Your task to perform on an android device: Open Google Maps and go to "Timeline" Image 0: 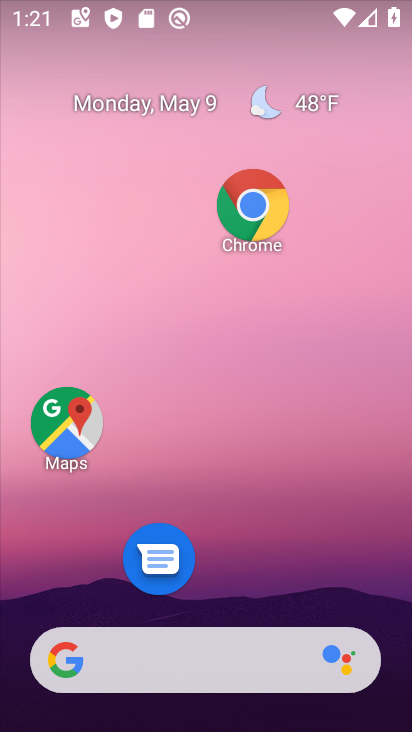
Step 0: drag from (267, 551) to (307, 250)
Your task to perform on an android device: Open Google Maps and go to "Timeline" Image 1: 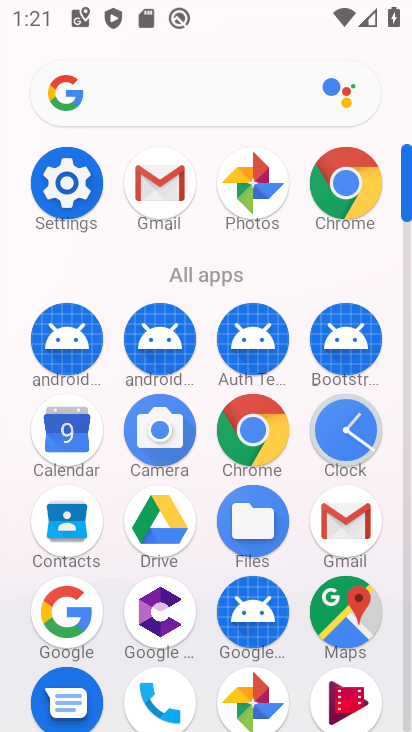
Step 1: click (344, 596)
Your task to perform on an android device: Open Google Maps and go to "Timeline" Image 2: 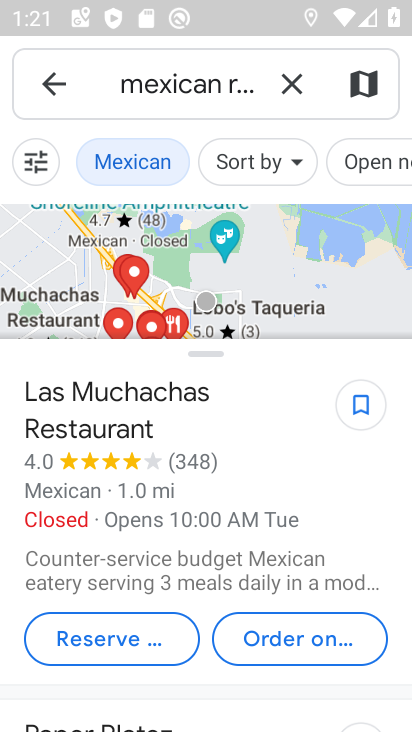
Step 2: click (283, 87)
Your task to perform on an android device: Open Google Maps and go to "Timeline" Image 3: 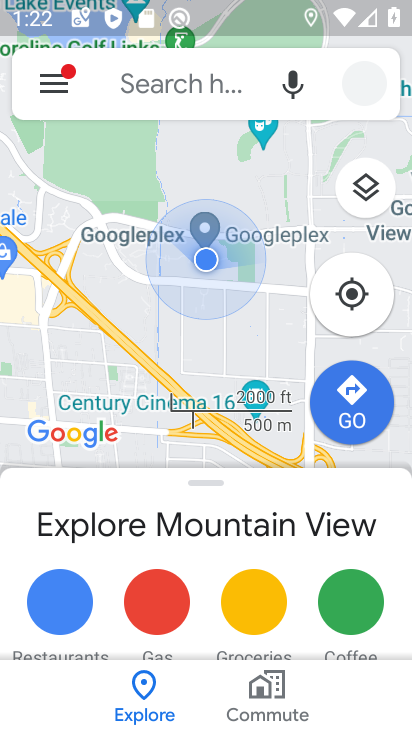
Step 3: click (52, 75)
Your task to perform on an android device: Open Google Maps and go to "Timeline" Image 4: 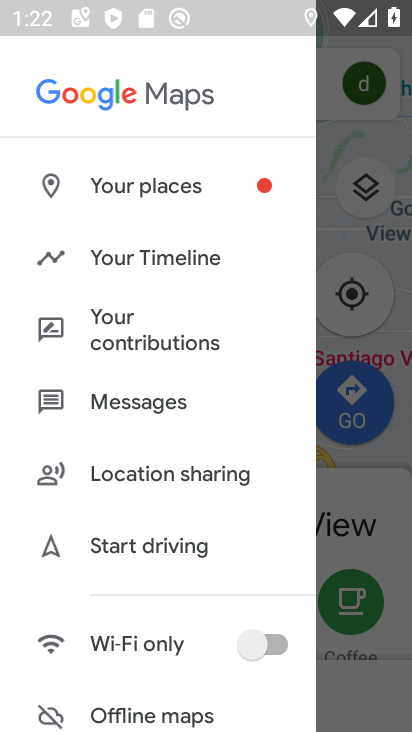
Step 4: click (156, 257)
Your task to perform on an android device: Open Google Maps and go to "Timeline" Image 5: 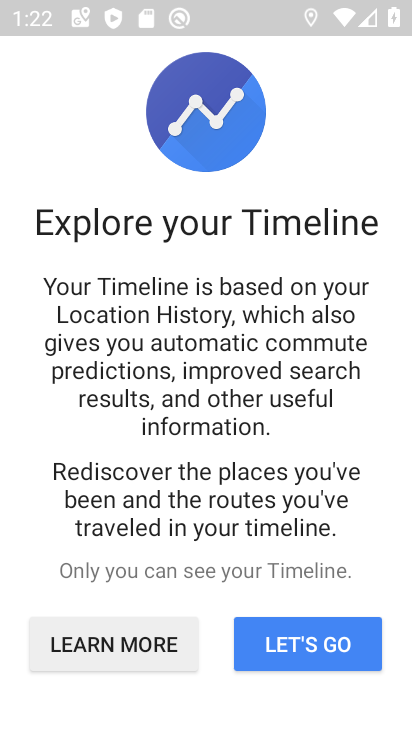
Step 5: drag from (287, 570) to (309, 207)
Your task to perform on an android device: Open Google Maps and go to "Timeline" Image 6: 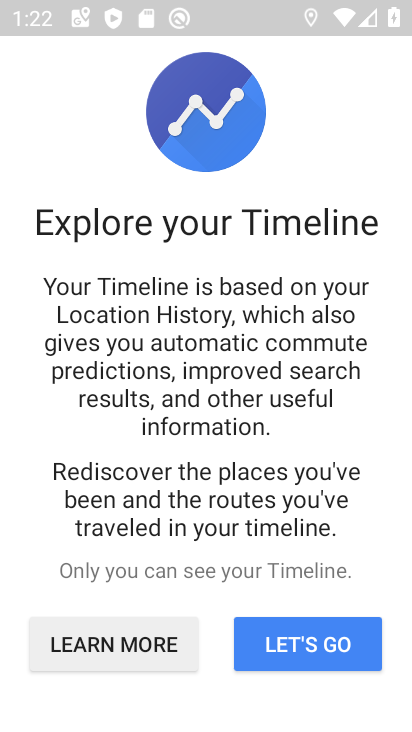
Step 6: click (301, 635)
Your task to perform on an android device: Open Google Maps and go to "Timeline" Image 7: 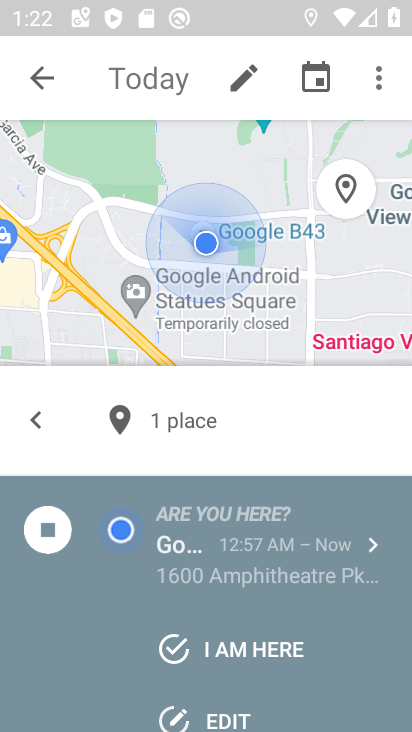
Step 7: task complete